Your task to perform on an android device: Open the phone app and click the voicemail tab. Image 0: 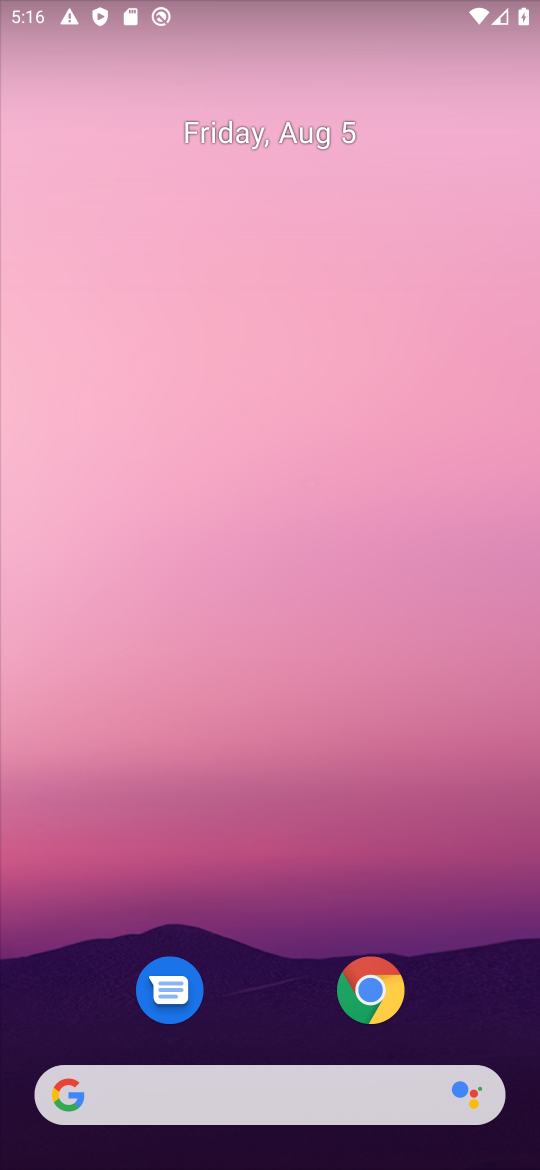
Step 0: drag from (269, 1068) to (252, 430)
Your task to perform on an android device: Open the phone app and click the voicemail tab. Image 1: 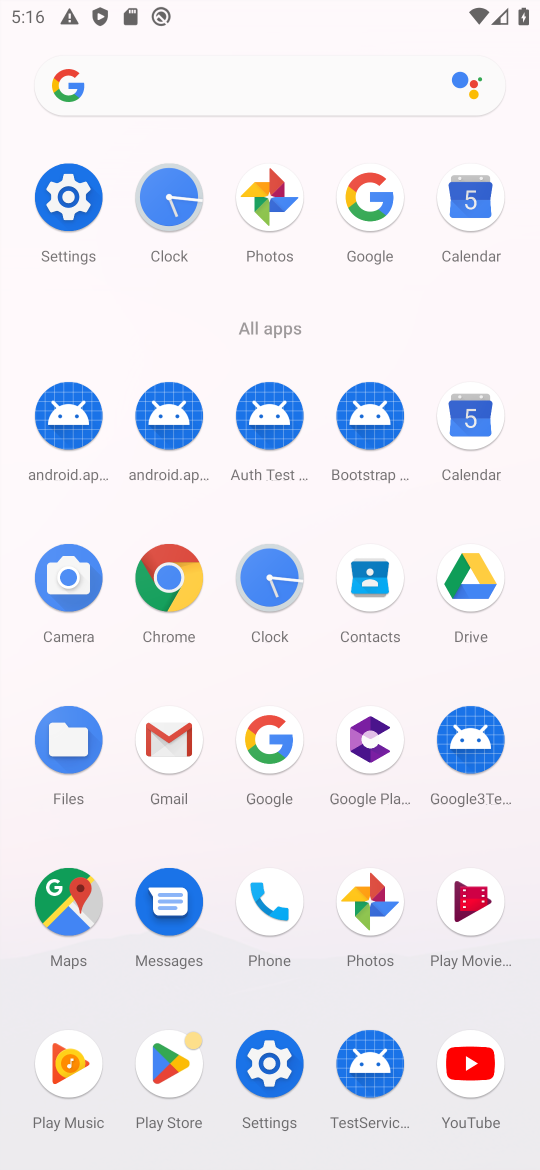
Step 1: click (278, 907)
Your task to perform on an android device: Open the phone app and click the voicemail tab. Image 2: 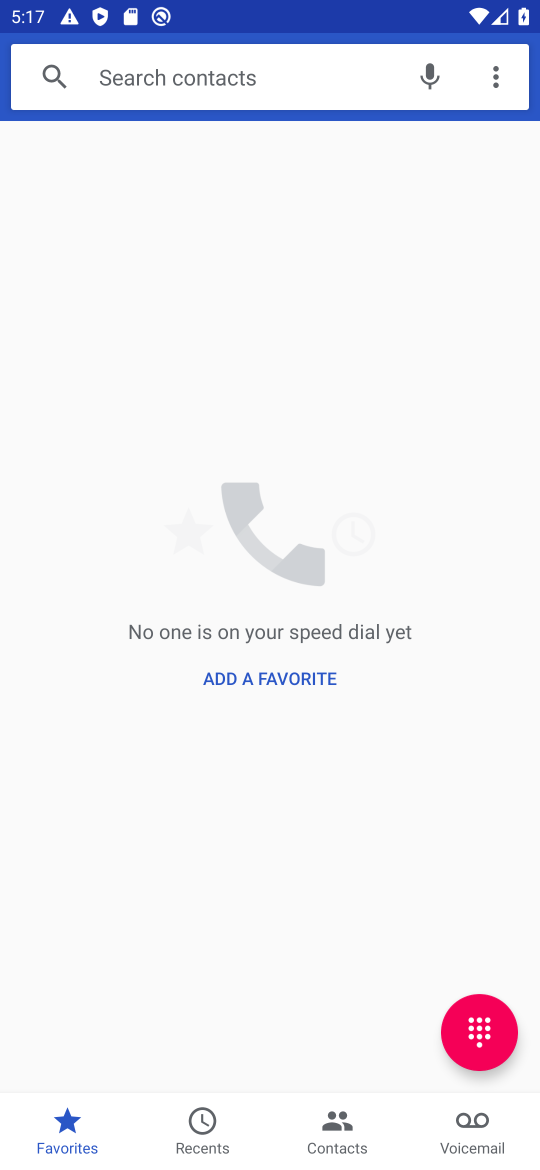
Step 2: click (465, 1123)
Your task to perform on an android device: Open the phone app and click the voicemail tab. Image 3: 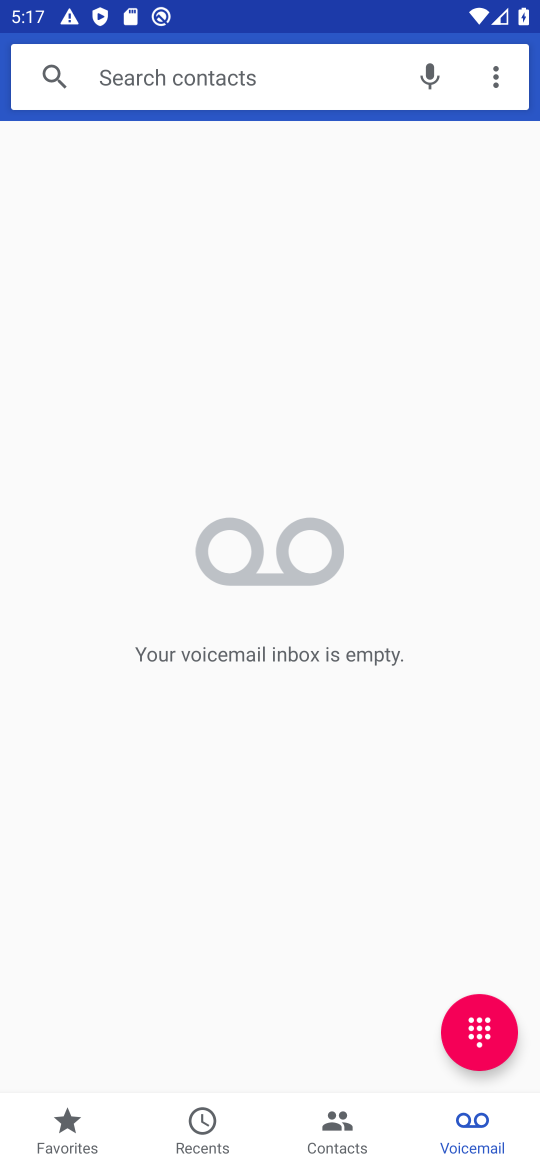
Step 3: task complete